Your task to perform on an android device: move a message to another label in the gmail app Image 0: 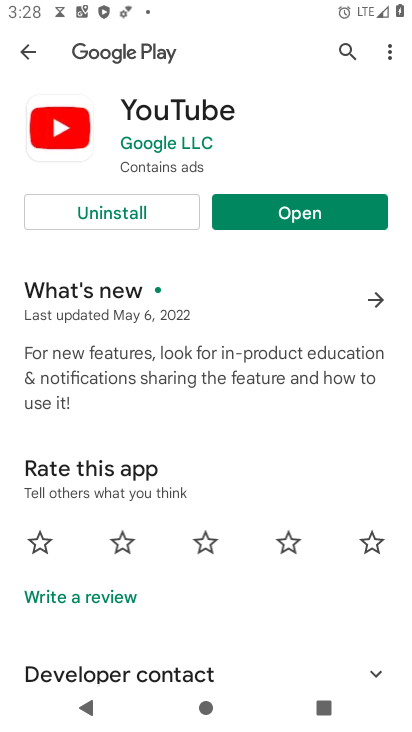
Step 0: press home button
Your task to perform on an android device: move a message to another label in the gmail app Image 1: 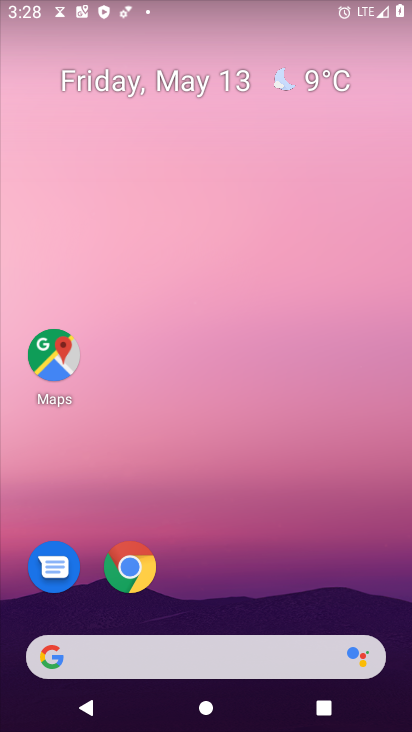
Step 1: drag from (269, 587) to (249, 1)
Your task to perform on an android device: move a message to another label in the gmail app Image 2: 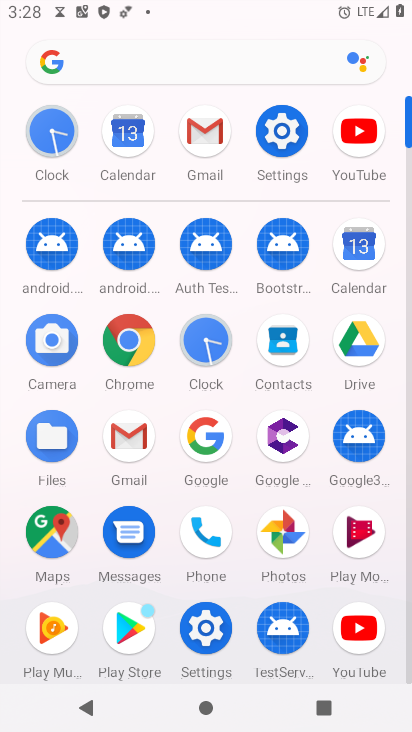
Step 2: click (197, 131)
Your task to perform on an android device: move a message to another label in the gmail app Image 3: 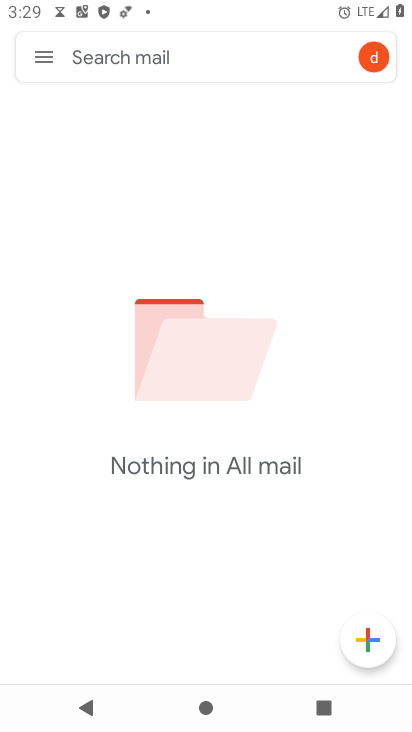
Step 3: task complete